Your task to perform on an android device: turn on bluetooth scan Image 0: 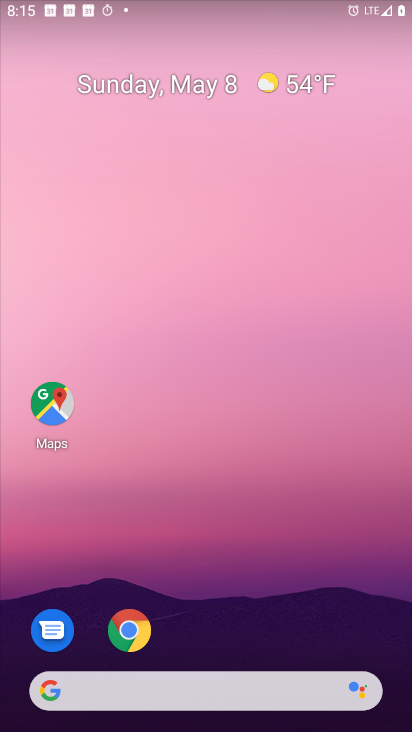
Step 0: drag from (214, 659) to (341, 27)
Your task to perform on an android device: turn on bluetooth scan Image 1: 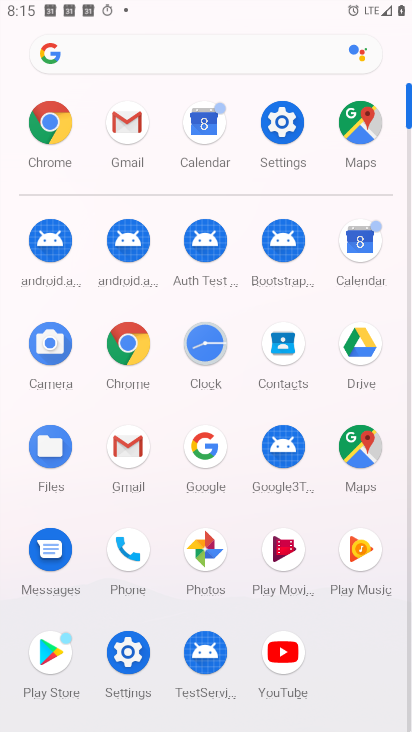
Step 1: click (285, 134)
Your task to perform on an android device: turn on bluetooth scan Image 2: 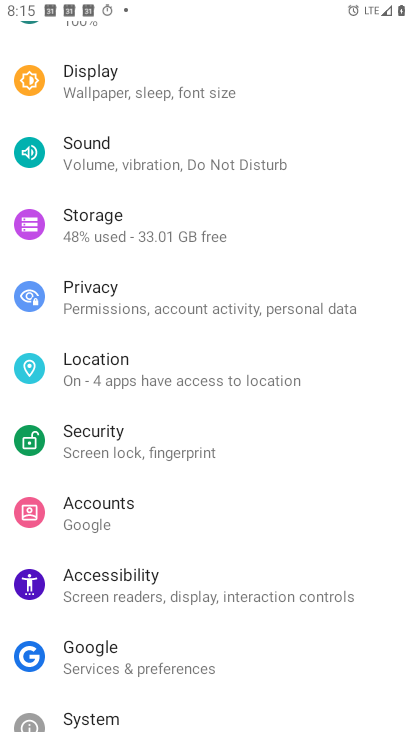
Step 2: click (79, 377)
Your task to perform on an android device: turn on bluetooth scan Image 3: 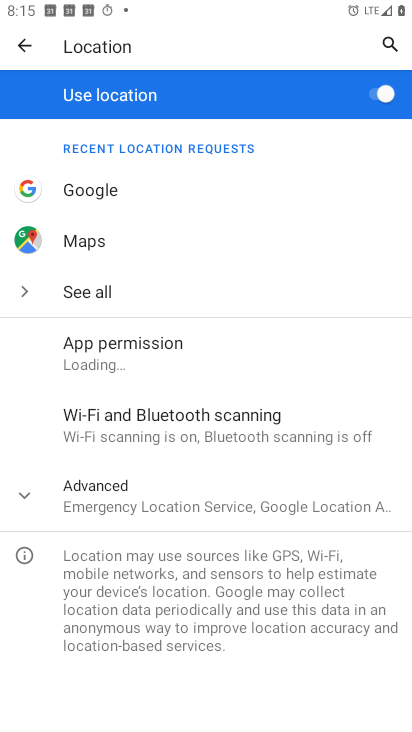
Step 3: click (168, 443)
Your task to perform on an android device: turn on bluetooth scan Image 4: 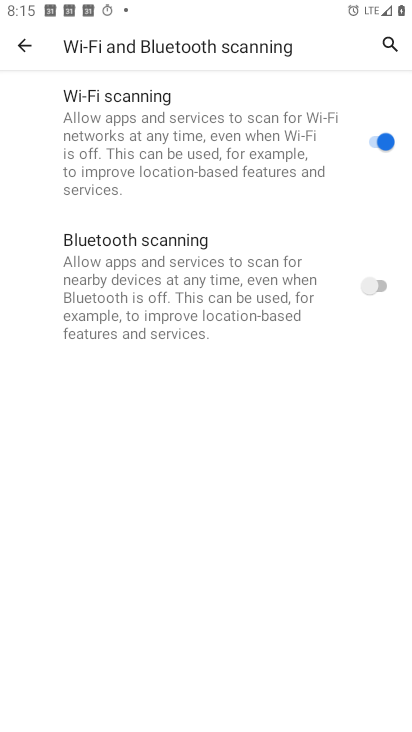
Step 4: click (376, 294)
Your task to perform on an android device: turn on bluetooth scan Image 5: 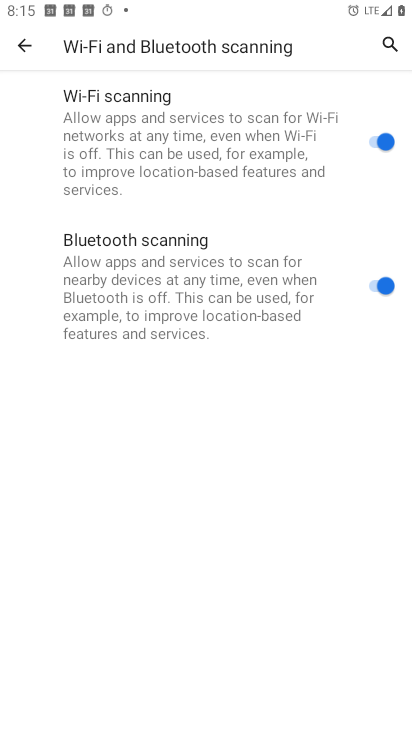
Step 5: task complete